Your task to perform on an android device: Go to Yahoo.com Image 0: 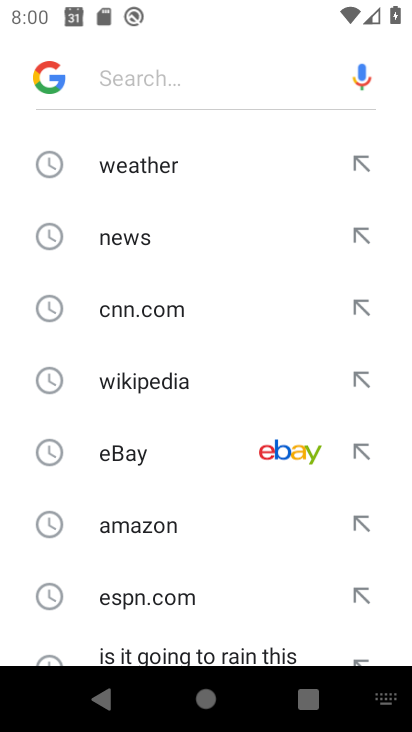
Step 0: press home button
Your task to perform on an android device: Go to Yahoo.com Image 1: 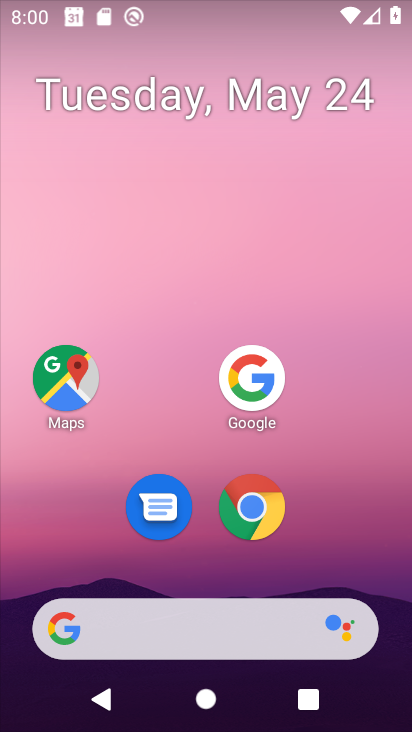
Step 1: click (256, 512)
Your task to perform on an android device: Go to Yahoo.com Image 2: 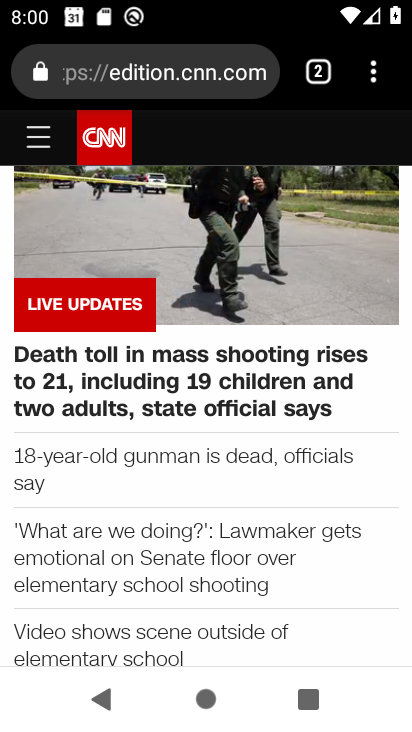
Step 2: drag from (367, 77) to (214, 139)
Your task to perform on an android device: Go to Yahoo.com Image 3: 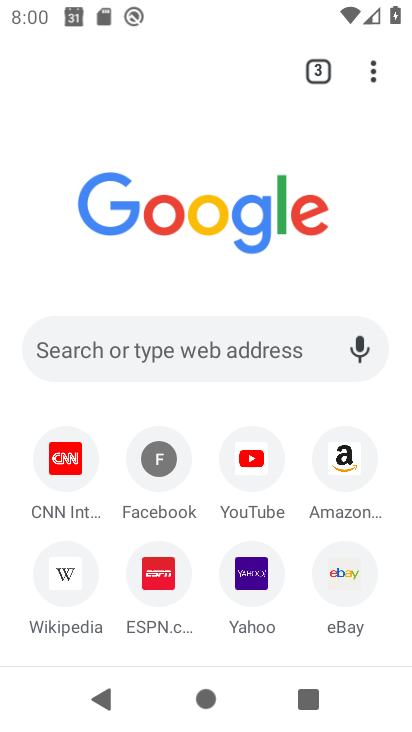
Step 3: click (248, 576)
Your task to perform on an android device: Go to Yahoo.com Image 4: 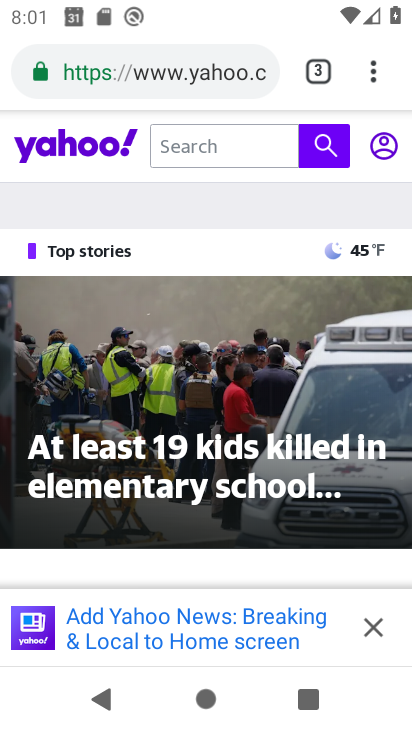
Step 4: task complete